Your task to perform on an android device: set default search engine in the chrome app Image 0: 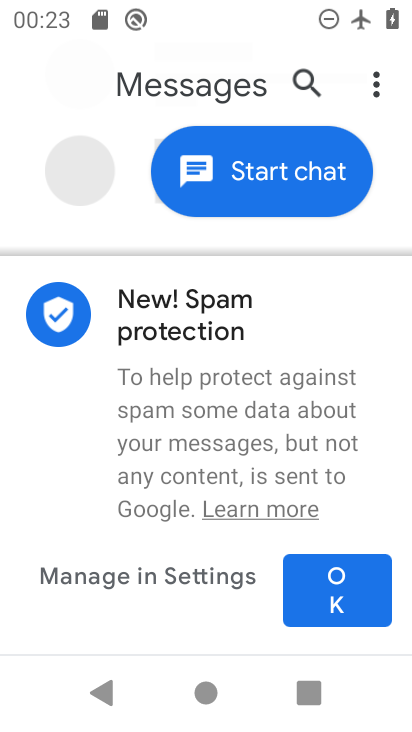
Step 0: press home button
Your task to perform on an android device: set default search engine in the chrome app Image 1: 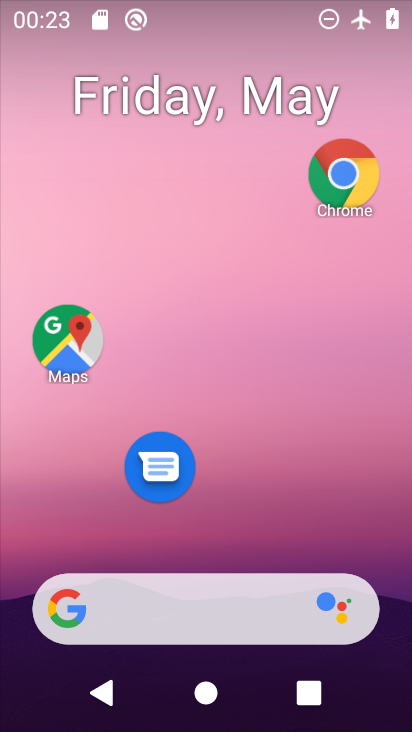
Step 1: drag from (276, 549) to (226, 203)
Your task to perform on an android device: set default search engine in the chrome app Image 2: 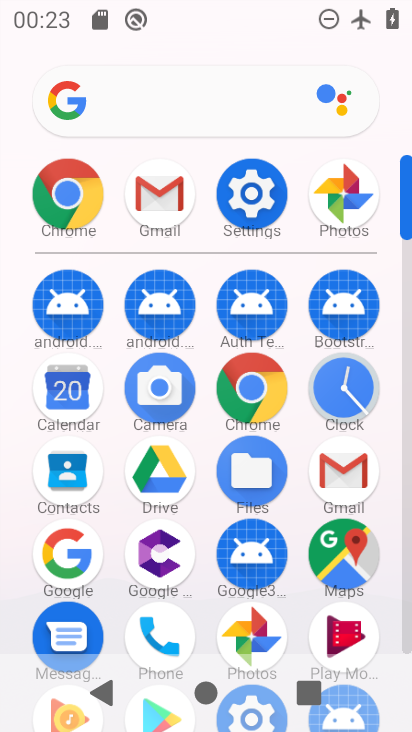
Step 2: click (51, 192)
Your task to perform on an android device: set default search engine in the chrome app Image 3: 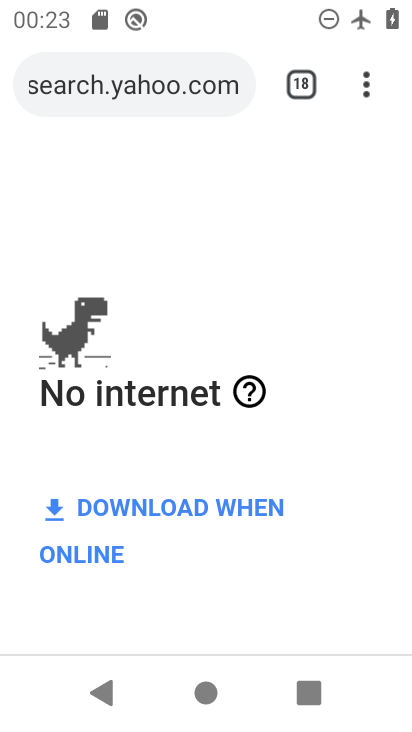
Step 3: click (359, 86)
Your task to perform on an android device: set default search engine in the chrome app Image 4: 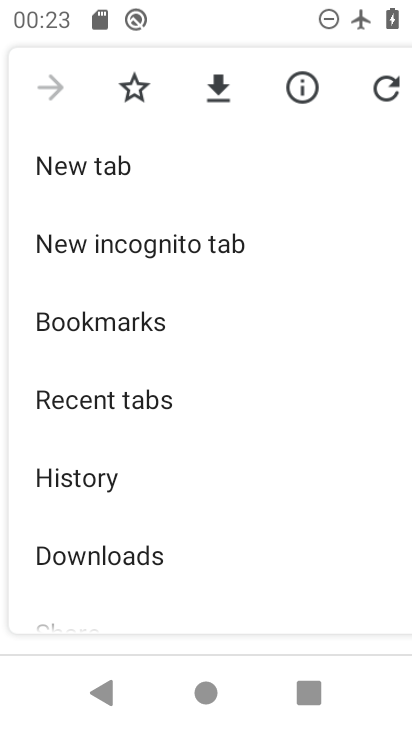
Step 4: click (124, 169)
Your task to perform on an android device: set default search engine in the chrome app Image 5: 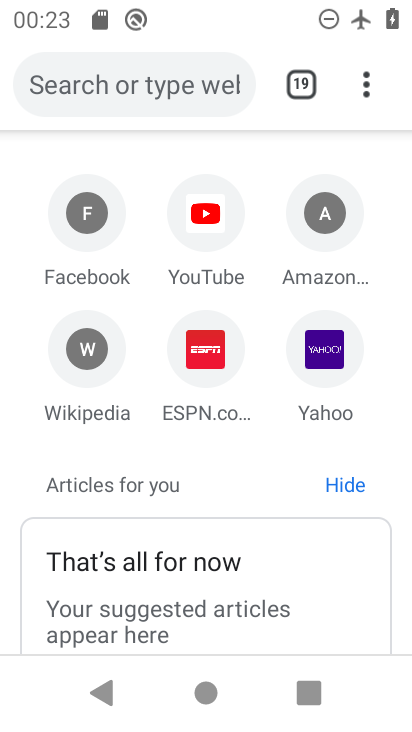
Step 5: click (350, 83)
Your task to perform on an android device: set default search engine in the chrome app Image 6: 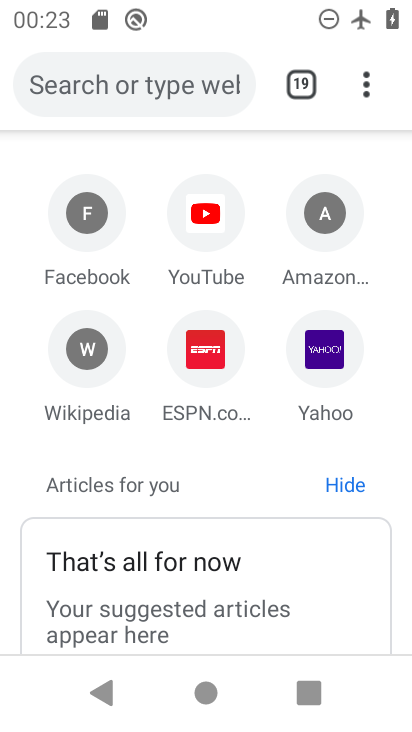
Step 6: click (344, 78)
Your task to perform on an android device: set default search engine in the chrome app Image 7: 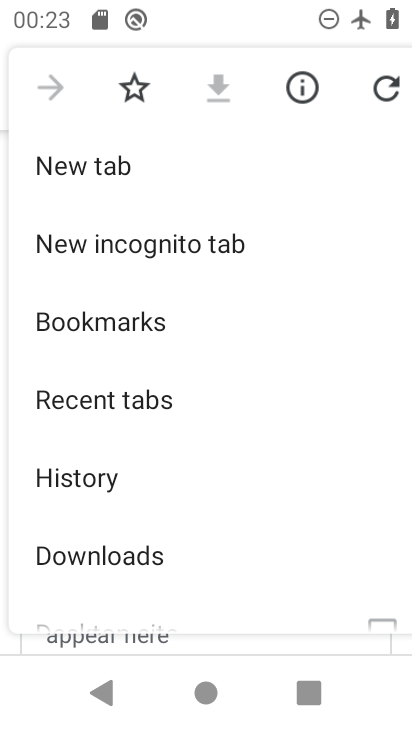
Step 7: drag from (135, 512) to (211, 197)
Your task to perform on an android device: set default search engine in the chrome app Image 8: 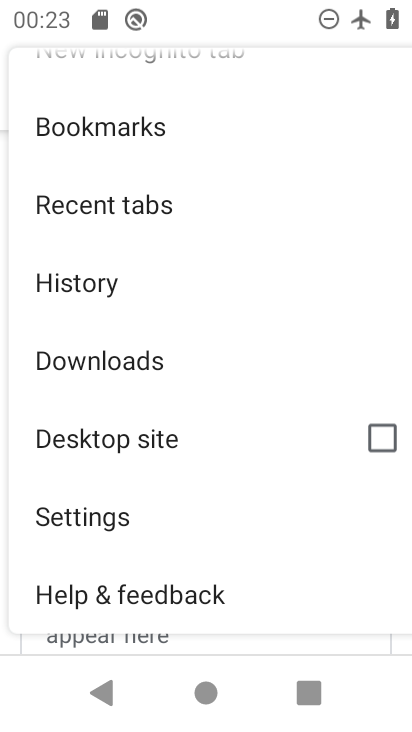
Step 8: click (136, 515)
Your task to perform on an android device: set default search engine in the chrome app Image 9: 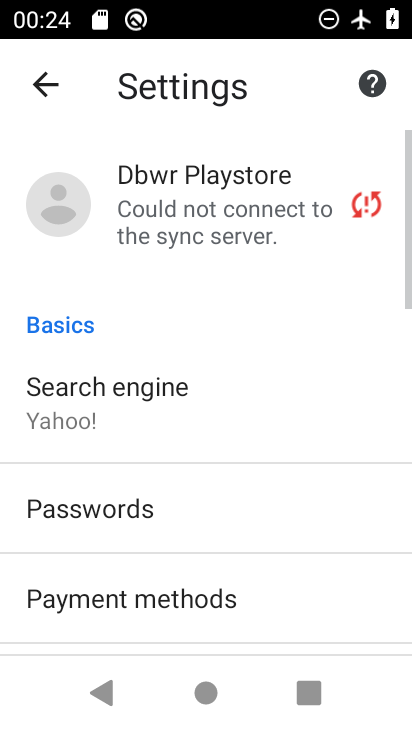
Step 9: click (176, 405)
Your task to perform on an android device: set default search engine in the chrome app Image 10: 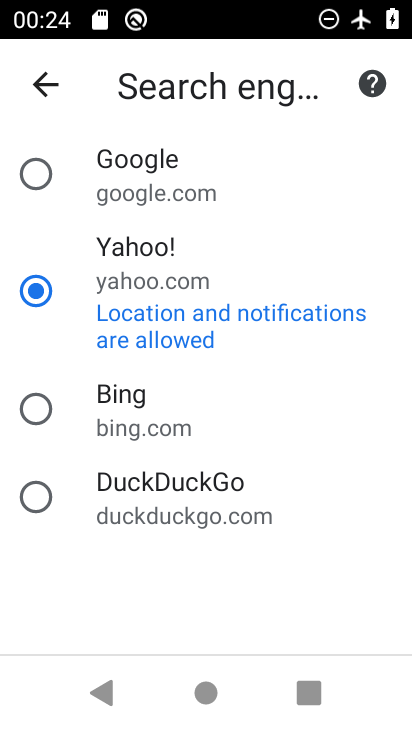
Step 10: click (96, 397)
Your task to perform on an android device: set default search engine in the chrome app Image 11: 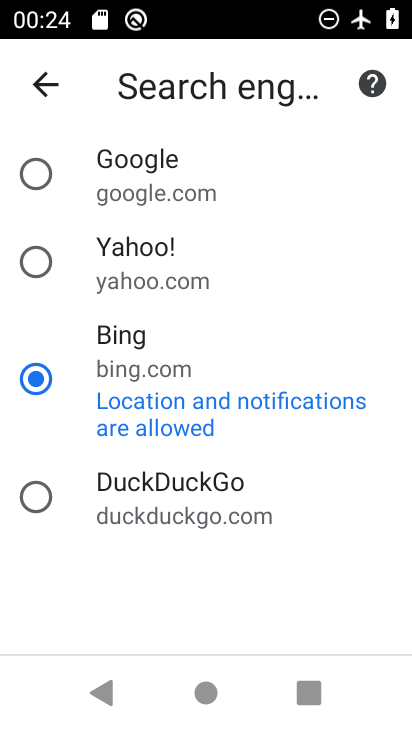
Step 11: task complete